Your task to perform on an android device: Open the calendar app, open the side menu, and click the "Day" option Image 0: 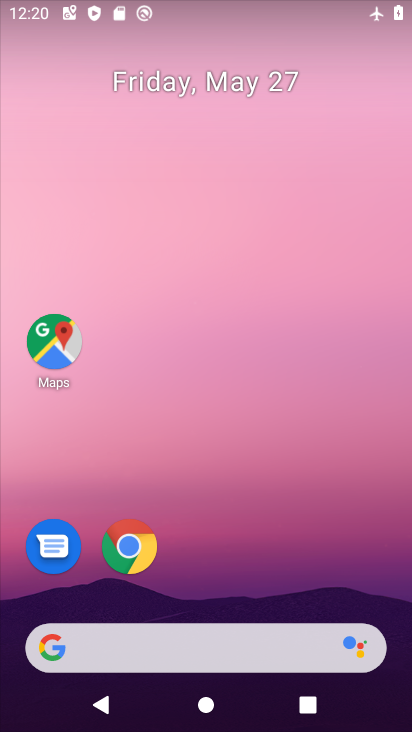
Step 0: drag from (247, 507) to (183, 138)
Your task to perform on an android device: Open the calendar app, open the side menu, and click the "Day" option Image 1: 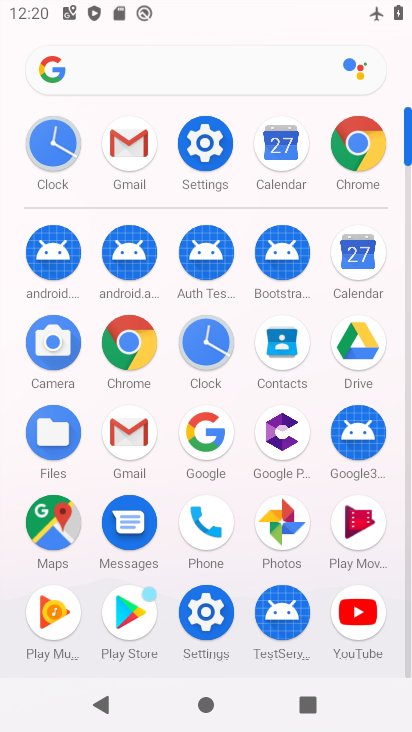
Step 1: click (341, 256)
Your task to perform on an android device: Open the calendar app, open the side menu, and click the "Day" option Image 2: 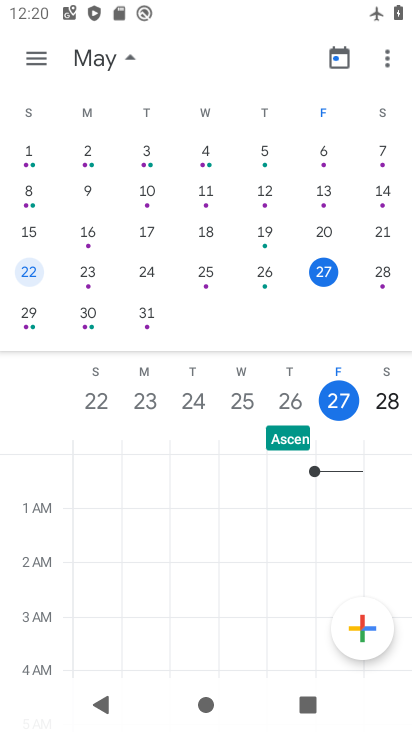
Step 2: click (35, 60)
Your task to perform on an android device: Open the calendar app, open the side menu, and click the "Day" option Image 3: 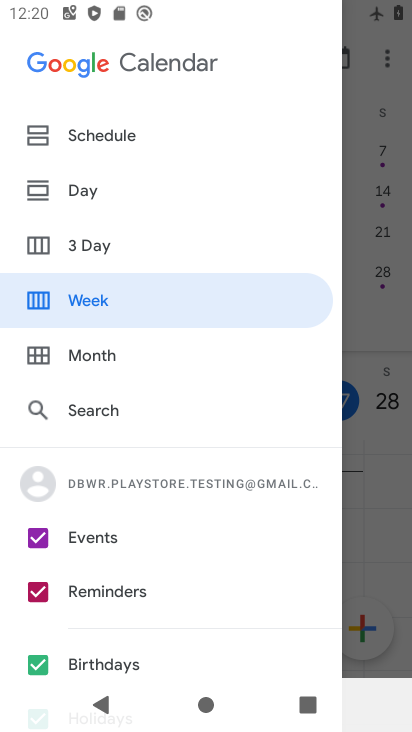
Step 3: click (75, 186)
Your task to perform on an android device: Open the calendar app, open the side menu, and click the "Day" option Image 4: 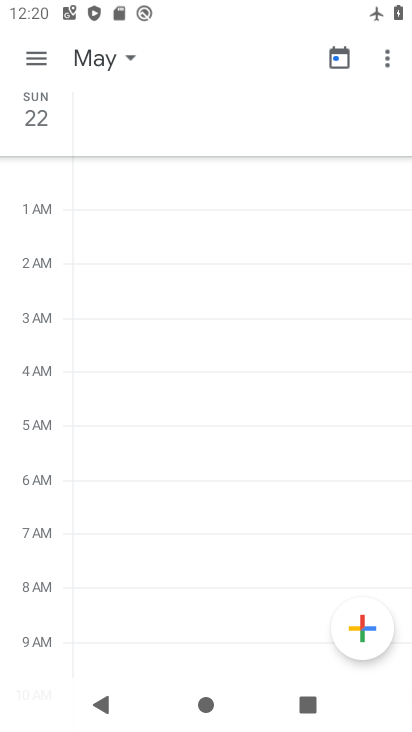
Step 4: task complete